Your task to perform on an android device: turn off wifi Image 0: 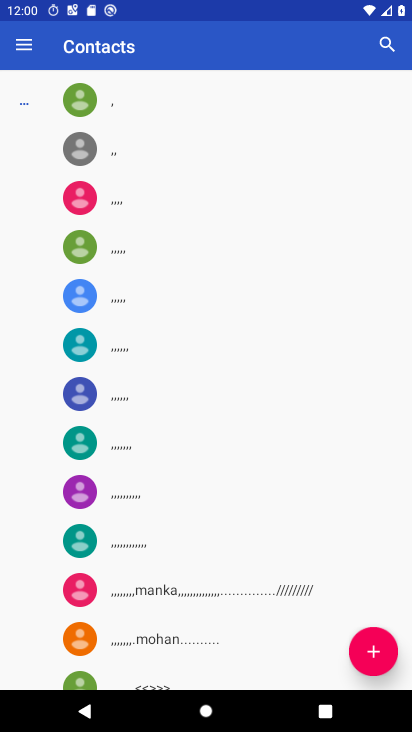
Step 0: press home button
Your task to perform on an android device: turn off wifi Image 1: 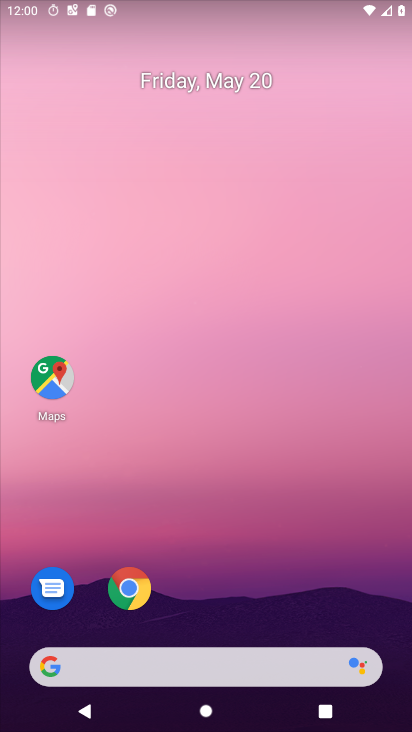
Step 1: drag from (197, 672) to (252, 133)
Your task to perform on an android device: turn off wifi Image 2: 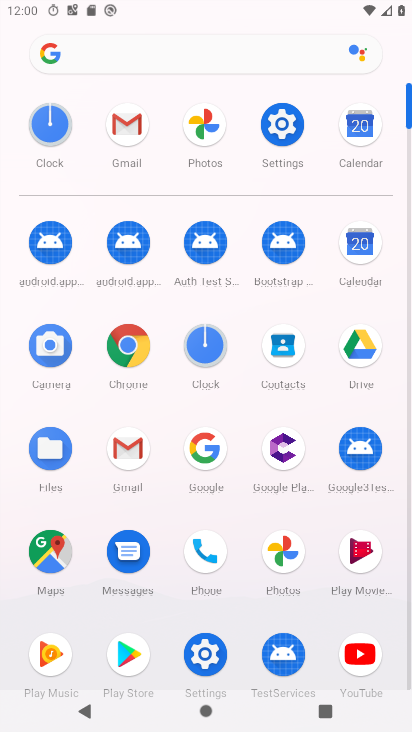
Step 2: click (284, 138)
Your task to perform on an android device: turn off wifi Image 3: 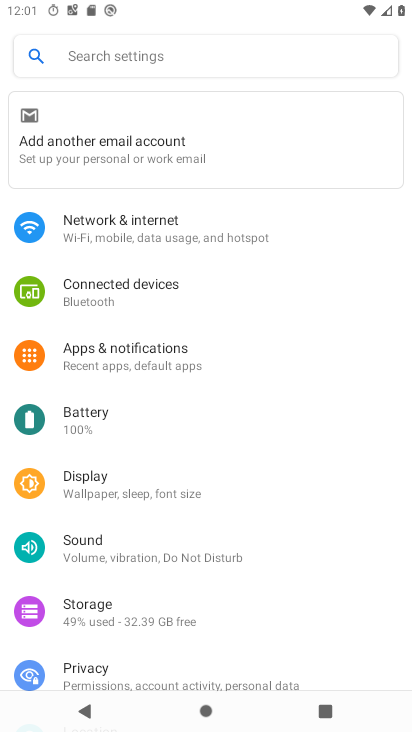
Step 3: click (159, 230)
Your task to perform on an android device: turn off wifi Image 4: 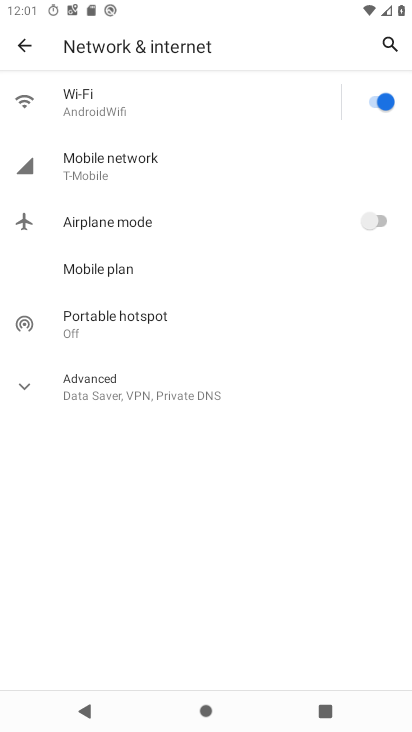
Step 4: click (376, 106)
Your task to perform on an android device: turn off wifi Image 5: 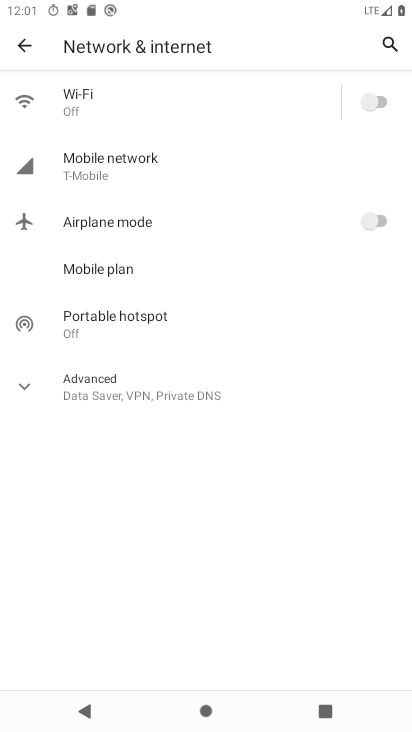
Step 5: task complete